Your task to perform on an android device: Toggle the flashlight Image 0: 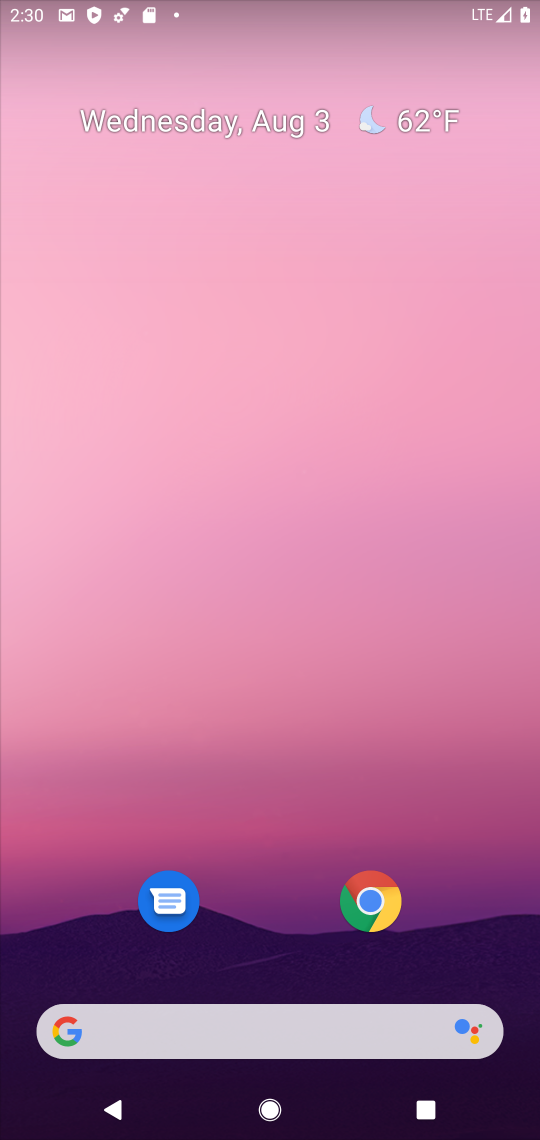
Step 0: drag from (291, 943) to (295, 49)
Your task to perform on an android device: Toggle the flashlight Image 1: 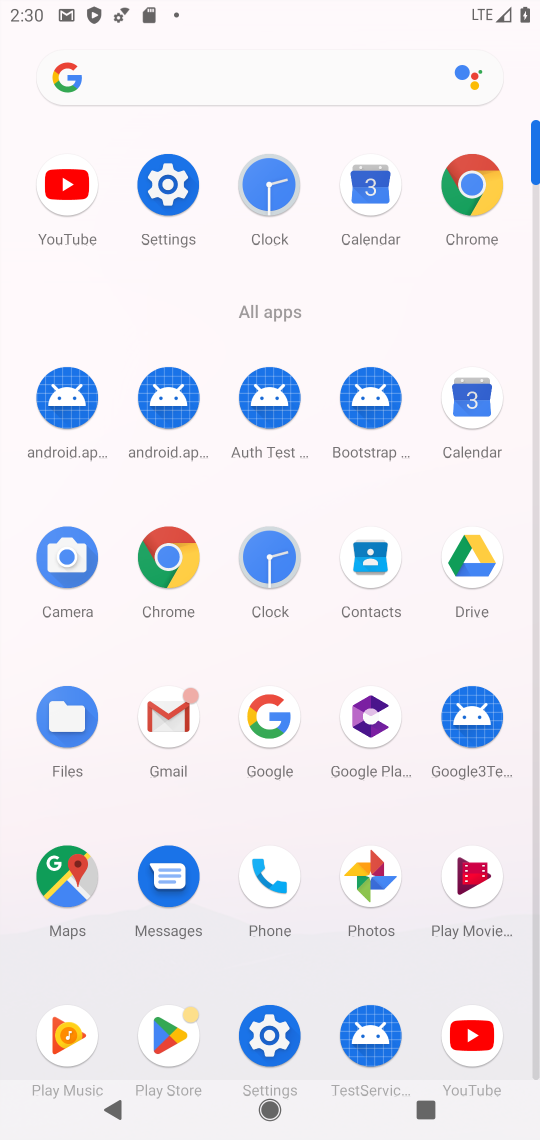
Step 1: click (165, 172)
Your task to perform on an android device: Toggle the flashlight Image 2: 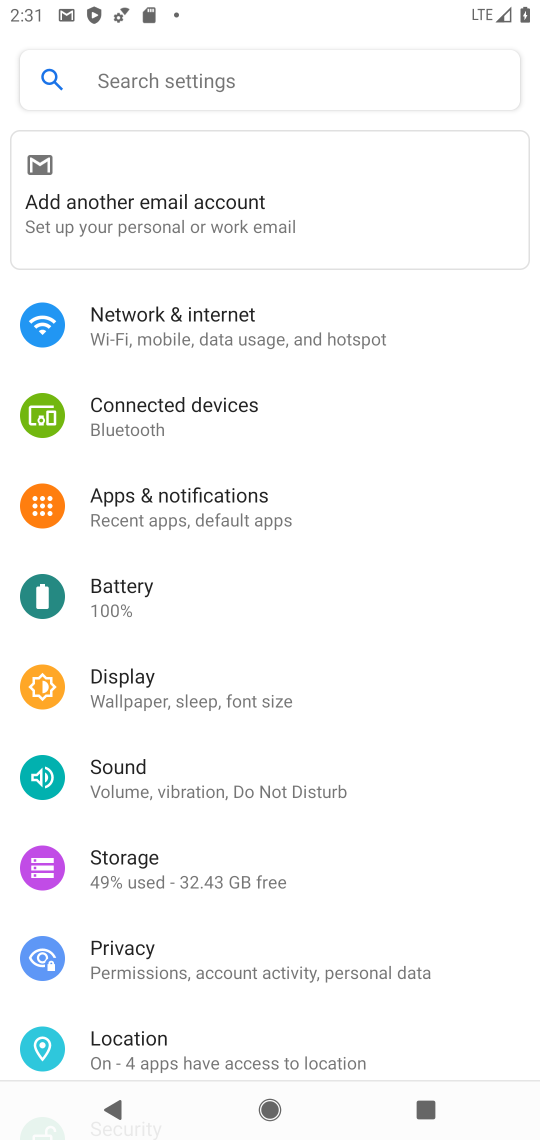
Step 2: task complete